Your task to perform on an android device: Do I have any events this weekend? Image 0: 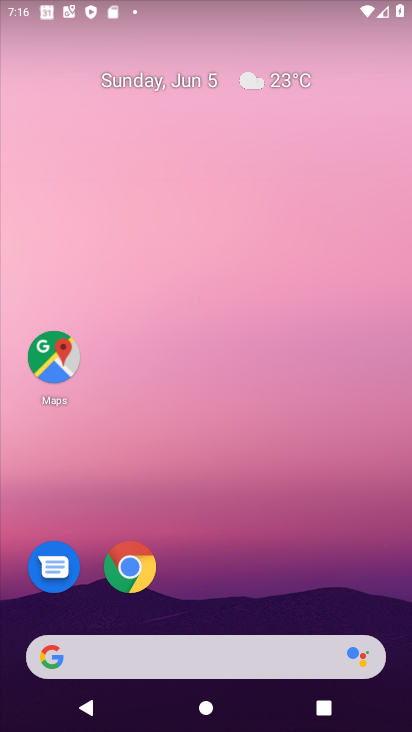
Step 0: drag from (393, 620) to (301, 199)
Your task to perform on an android device: Do I have any events this weekend? Image 1: 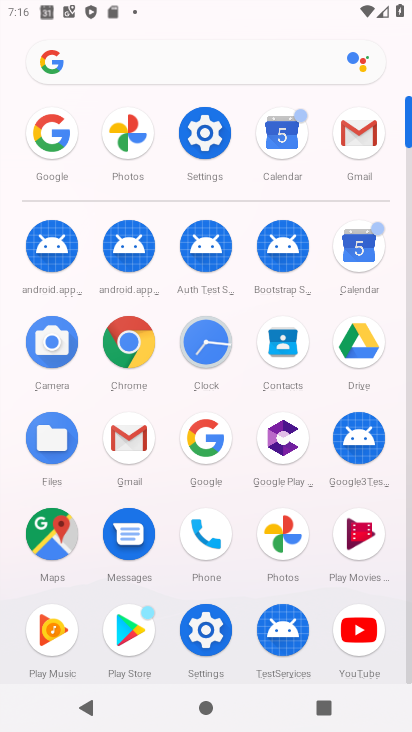
Step 1: click (362, 236)
Your task to perform on an android device: Do I have any events this weekend? Image 2: 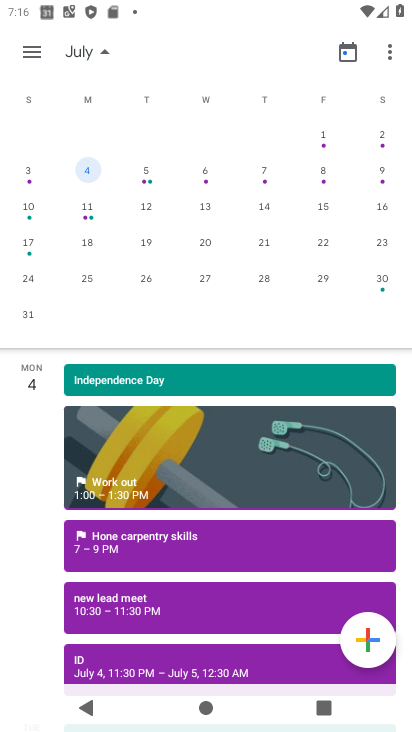
Step 2: drag from (51, 141) to (342, 215)
Your task to perform on an android device: Do I have any events this weekend? Image 3: 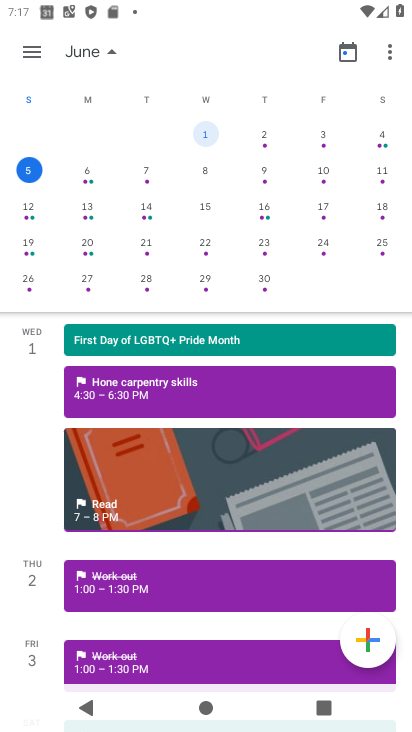
Step 3: click (260, 480)
Your task to perform on an android device: Do I have any events this weekend? Image 4: 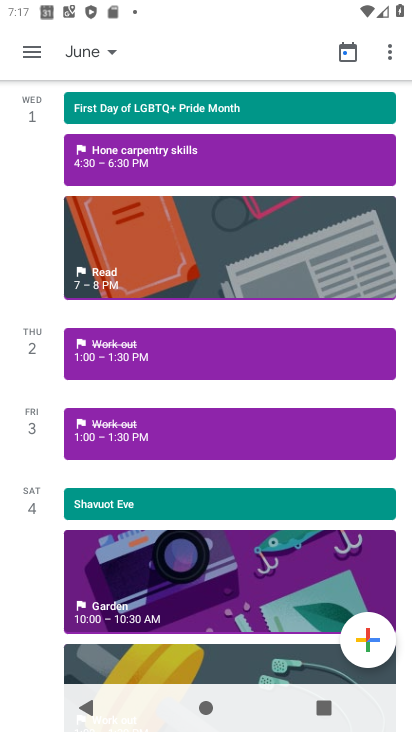
Step 4: task complete